Your task to perform on an android device: Go to accessibility settings Image 0: 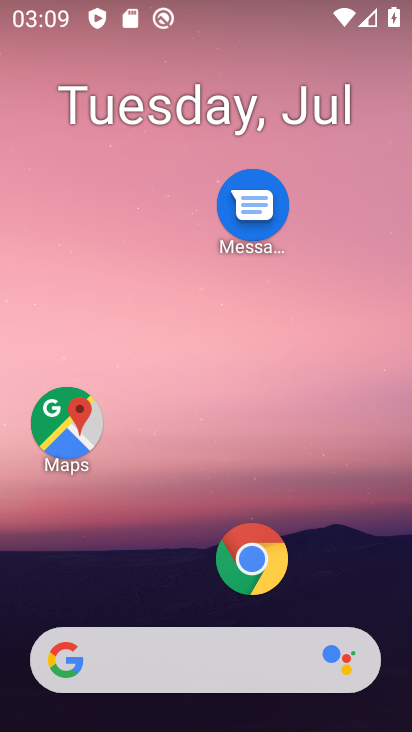
Step 0: drag from (170, 635) to (226, 89)
Your task to perform on an android device: Go to accessibility settings Image 1: 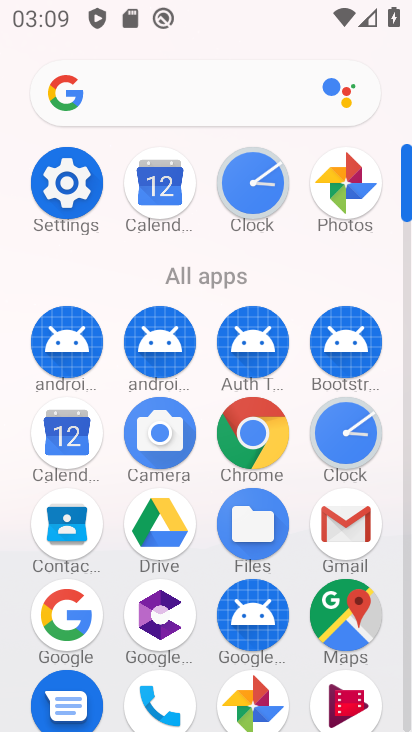
Step 1: click (47, 191)
Your task to perform on an android device: Go to accessibility settings Image 2: 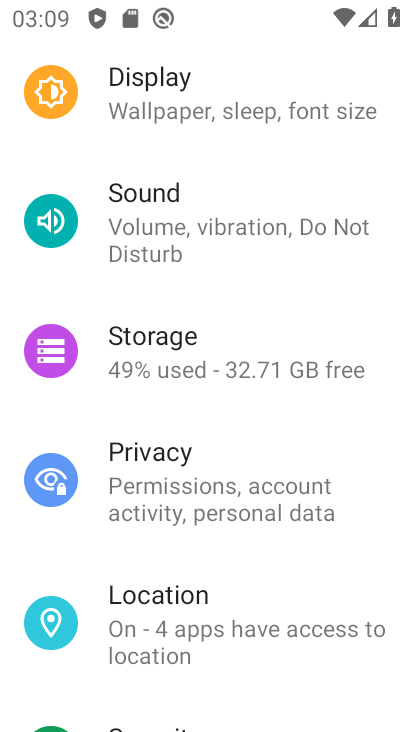
Step 2: drag from (193, 635) to (282, 28)
Your task to perform on an android device: Go to accessibility settings Image 3: 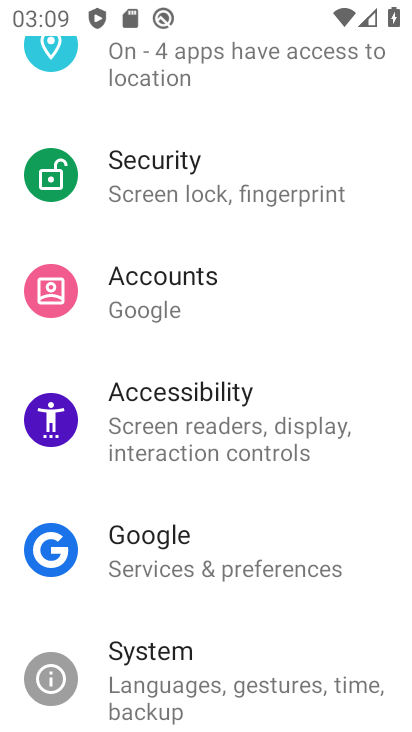
Step 3: click (200, 441)
Your task to perform on an android device: Go to accessibility settings Image 4: 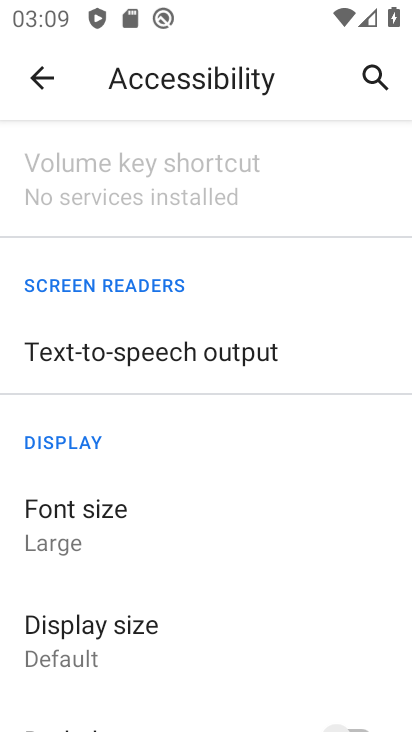
Step 4: task complete